Your task to perform on an android device: clear history in the chrome app Image 0: 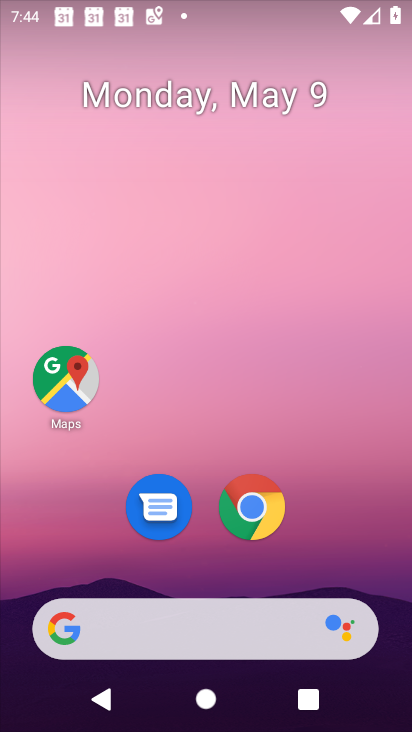
Step 0: drag from (228, 672) to (276, 184)
Your task to perform on an android device: clear history in the chrome app Image 1: 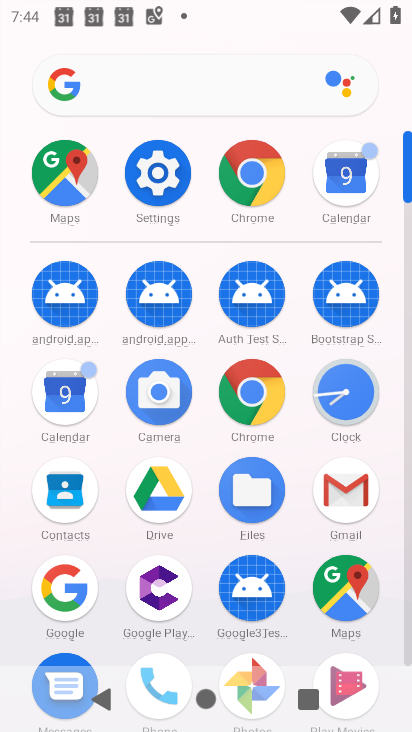
Step 1: click (220, 182)
Your task to perform on an android device: clear history in the chrome app Image 2: 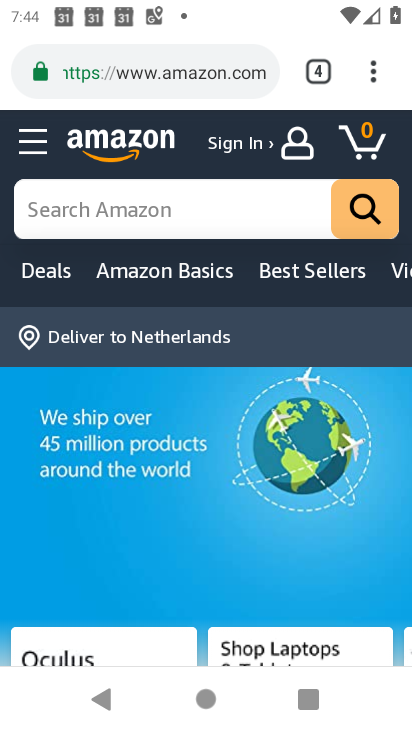
Step 2: click (357, 93)
Your task to perform on an android device: clear history in the chrome app Image 3: 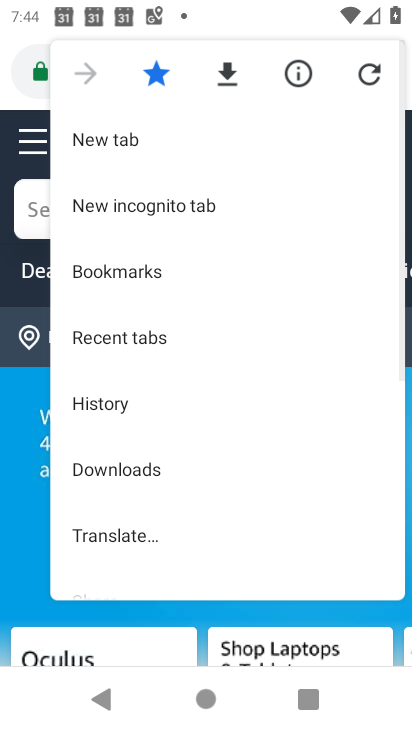
Step 3: click (107, 409)
Your task to perform on an android device: clear history in the chrome app Image 4: 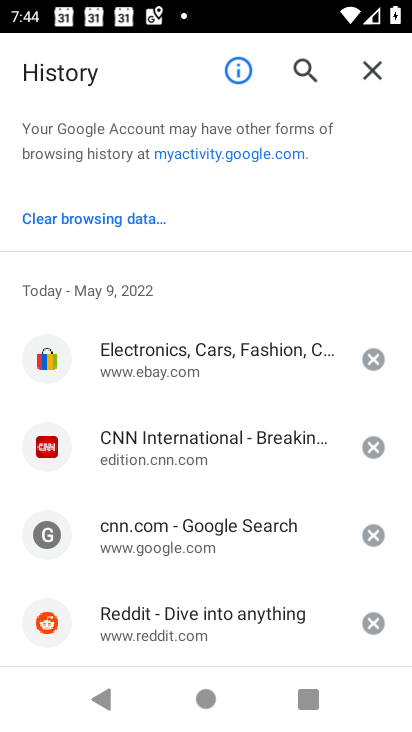
Step 4: click (110, 233)
Your task to perform on an android device: clear history in the chrome app Image 5: 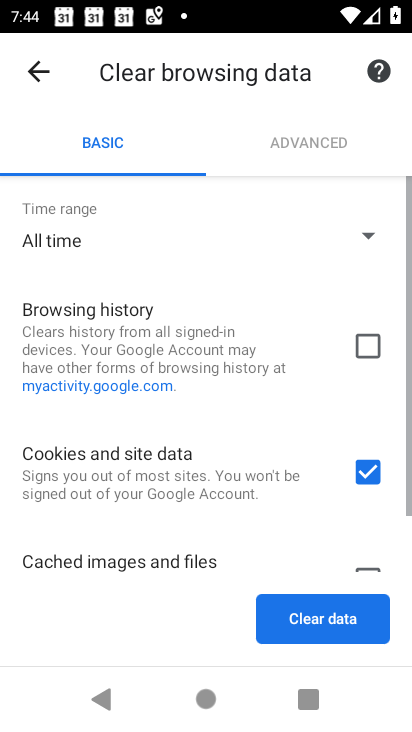
Step 5: click (361, 336)
Your task to perform on an android device: clear history in the chrome app Image 6: 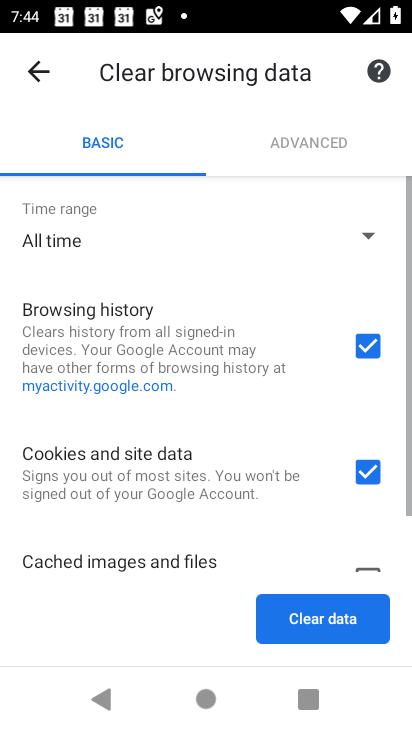
Step 6: click (364, 474)
Your task to perform on an android device: clear history in the chrome app Image 7: 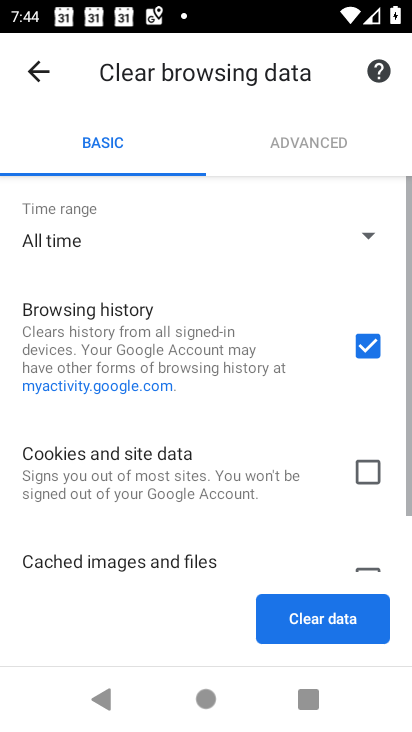
Step 7: click (315, 625)
Your task to perform on an android device: clear history in the chrome app Image 8: 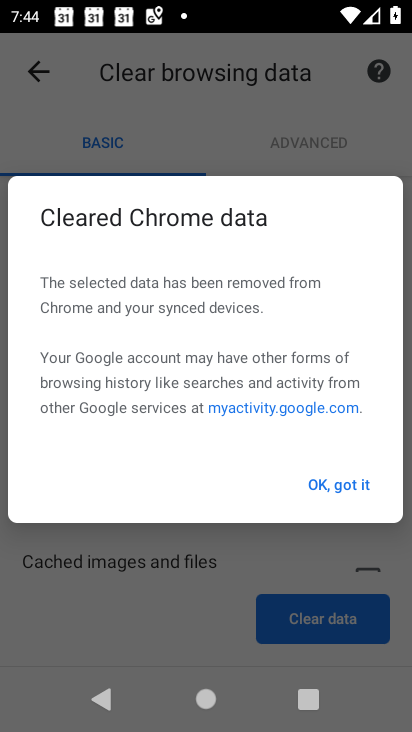
Step 8: task complete